Your task to perform on an android device: Open settings Image 0: 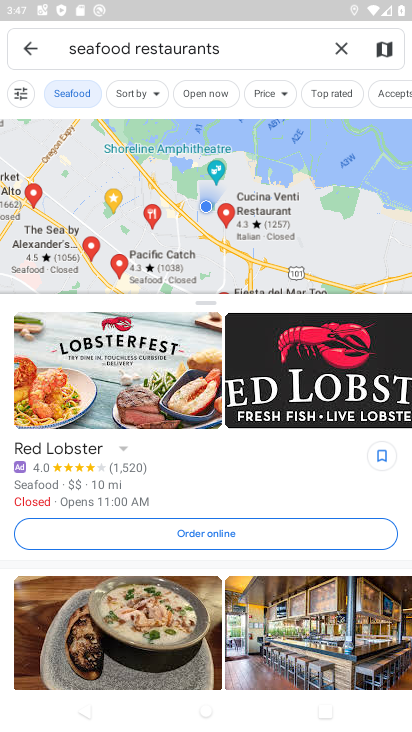
Step 0: press home button
Your task to perform on an android device: Open settings Image 1: 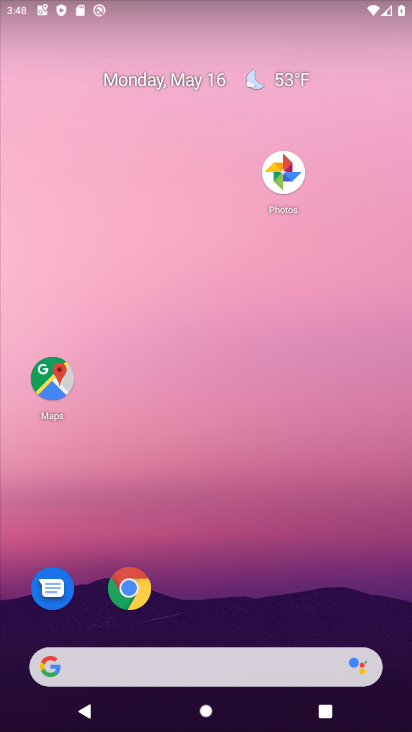
Step 1: drag from (179, 605) to (159, 132)
Your task to perform on an android device: Open settings Image 2: 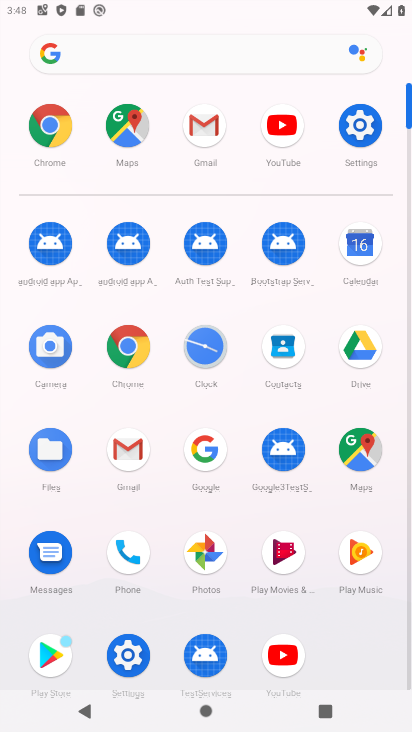
Step 2: click (368, 114)
Your task to perform on an android device: Open settings Image 3: 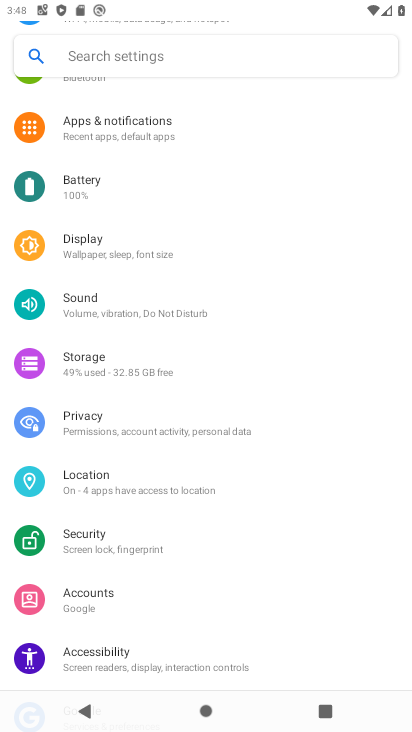
Step 3: task complete